Your task to perform on an android device: turn on the 12-hour format for clock Image 0: 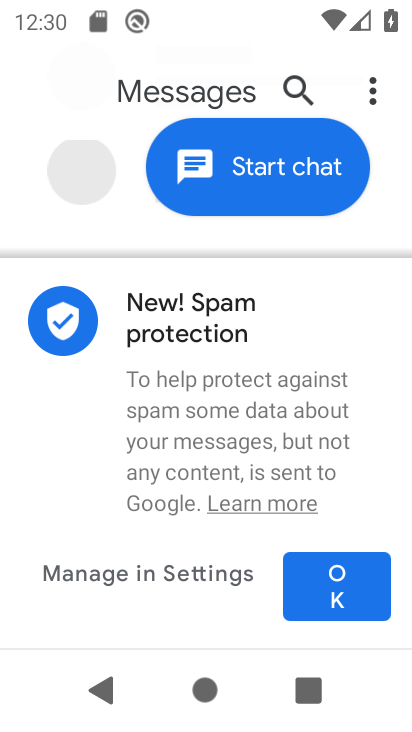
Step 0: press back button
Your task to perform on an android device: turn on the 12-hour format for clock Image 1: 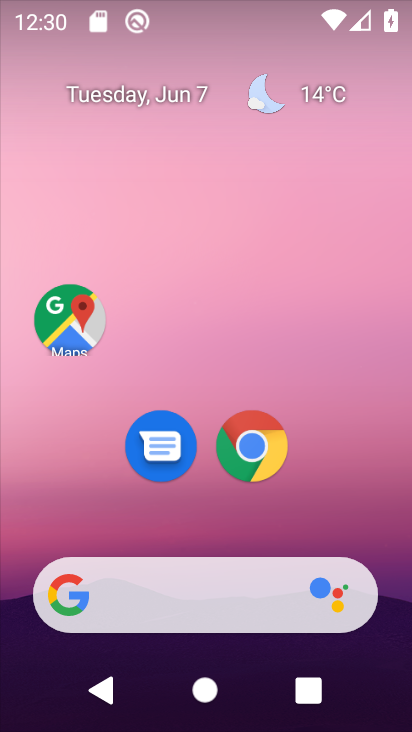
Step 1: drag from (128, 540) to (188, 64)
Your task to perform on an android device: turn on the 12-hour format for clock Image 2: 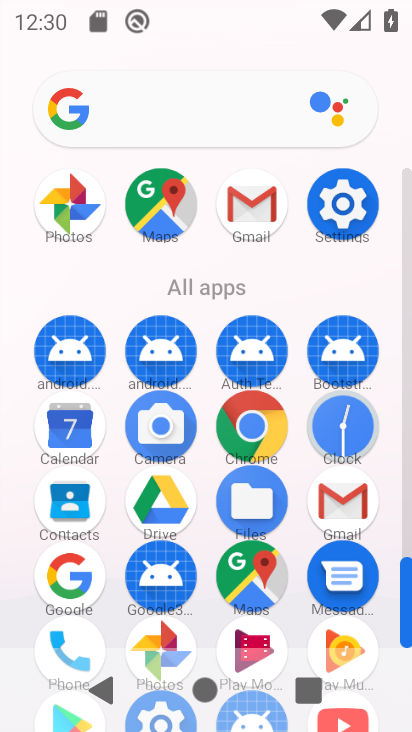
Step 2: click (339, 443)
Your task to perform on an android device: turn on the 12-hour format for clock Image 3: 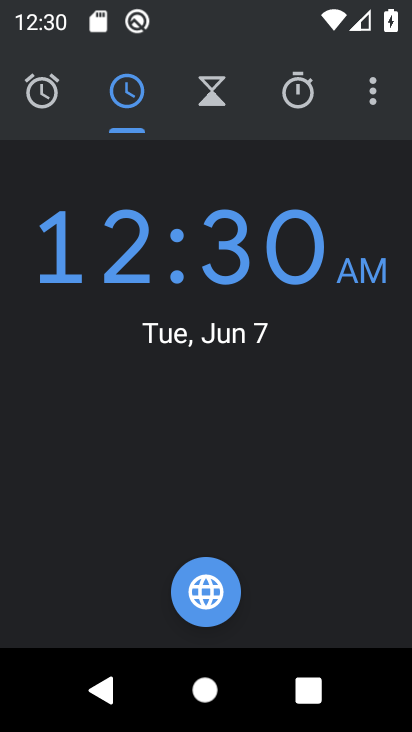
Step 3: click (380, 78)
Your task to perform on an android device: turn on the 12-hour format for clock Image 4: 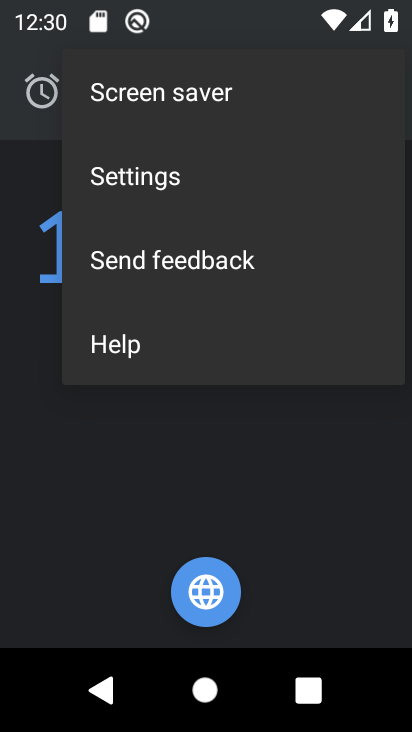
Step 4: click (175, 174)
Your task to perform on an android device: turn on the 12-hour format for clock Image 5: 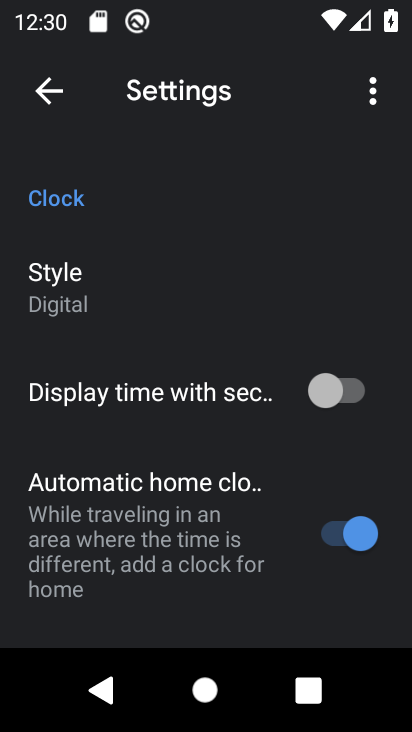
Step 5: drag from (139, 538) to (203, 37)
Your task to perform on an android device: turn on the 12-hour format for clock Image 6: 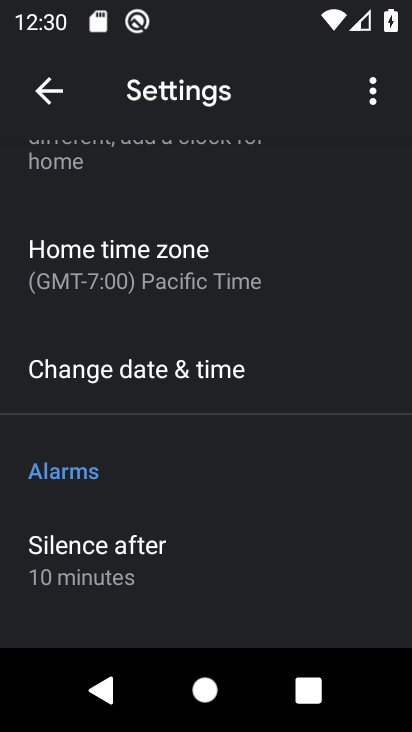
Step 6: click (169, 371)
Your task to perform on an android device: turn on the 12-hour format for clock Image 7: 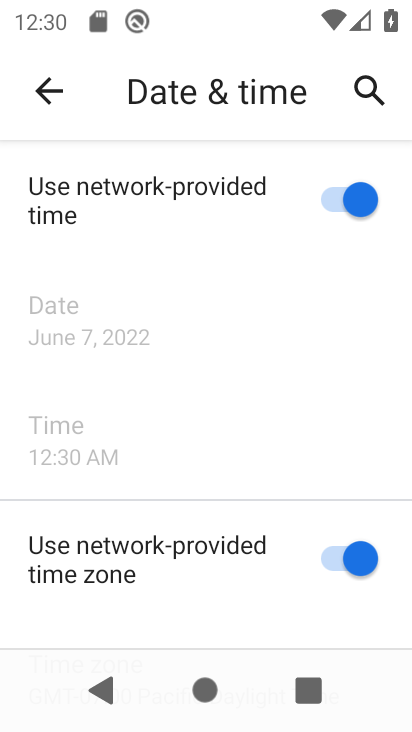
Step 7: task complete